Your task to perform on an android device: check storage Image 0: 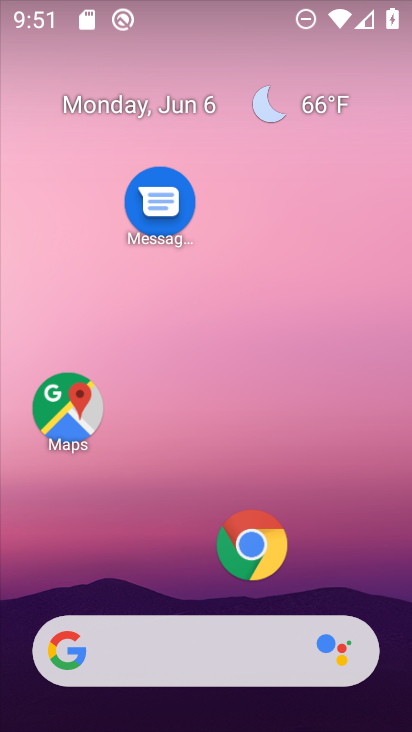
Step 0: drag from (195, 593) to (185, 314)
Your task to perform on an android device: check storage Image 1: 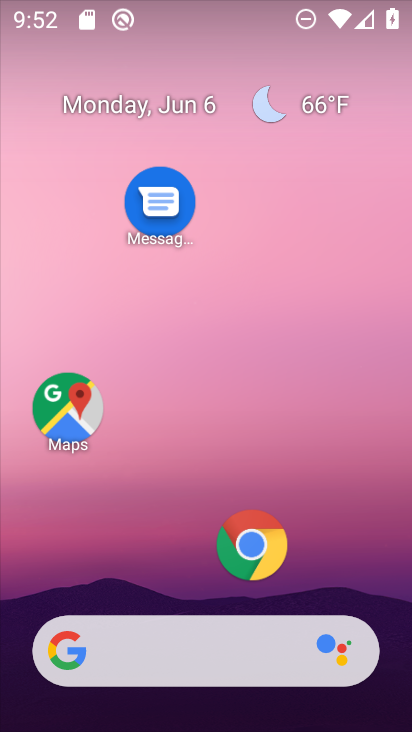
Step 1: drag from (101, 574) to (56, 235)
Your task to perform on an android device: check storage Image 2: 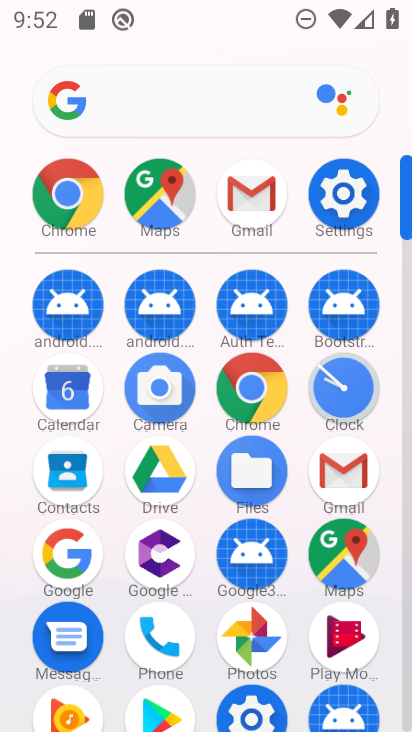
Step 2: click (334, 189)
Your task to perform on an android device: check storage Image 3: 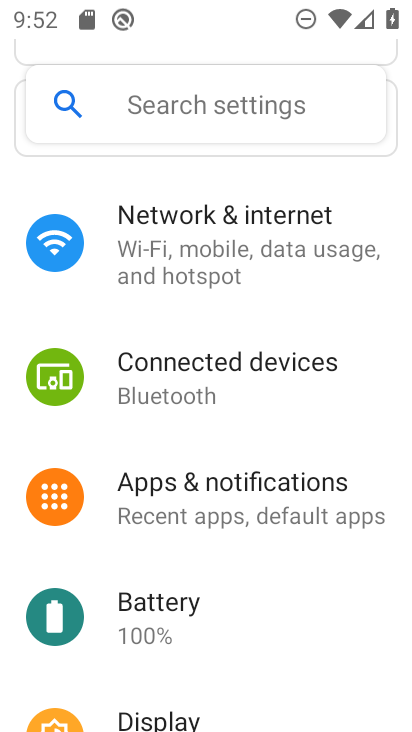
Step 3: drag from (245, 596) to (193, 309)
Your task to perform on an android device: check storage Image 4: 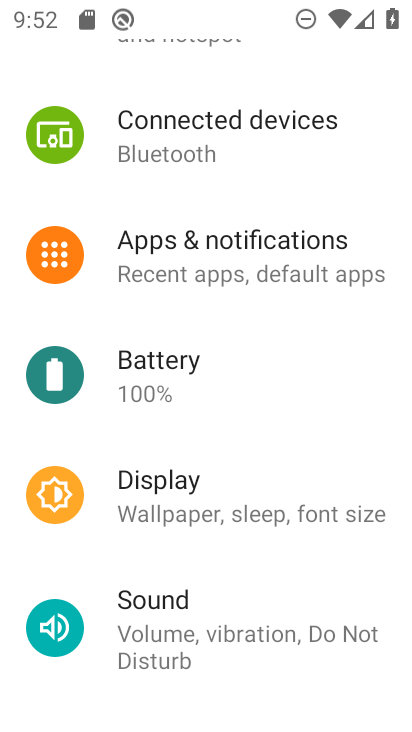
Step 4: drag from (231, 673) to (228, 342)
Your task to perform on an android device: check storage Image 5: 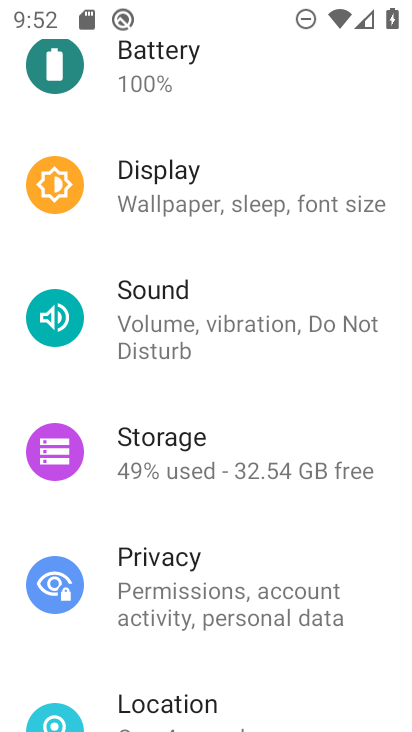
Step 5: click (215, 470)
Your task to perform on an android device: check storage Image 6: 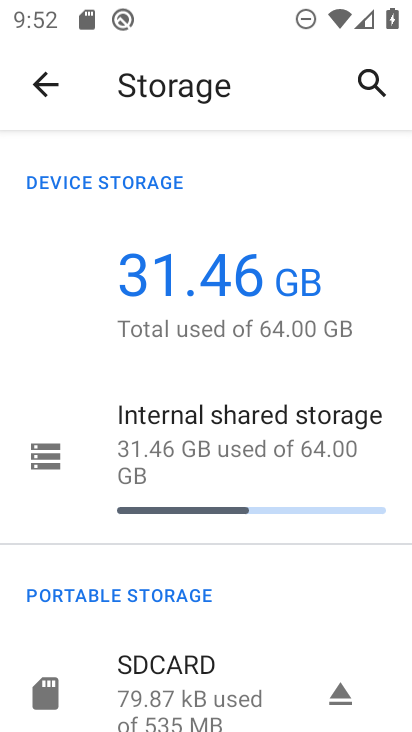
Step 6: task complete